Your task to perform on an android device: What's on the menu at Red Lobster? Image 0: 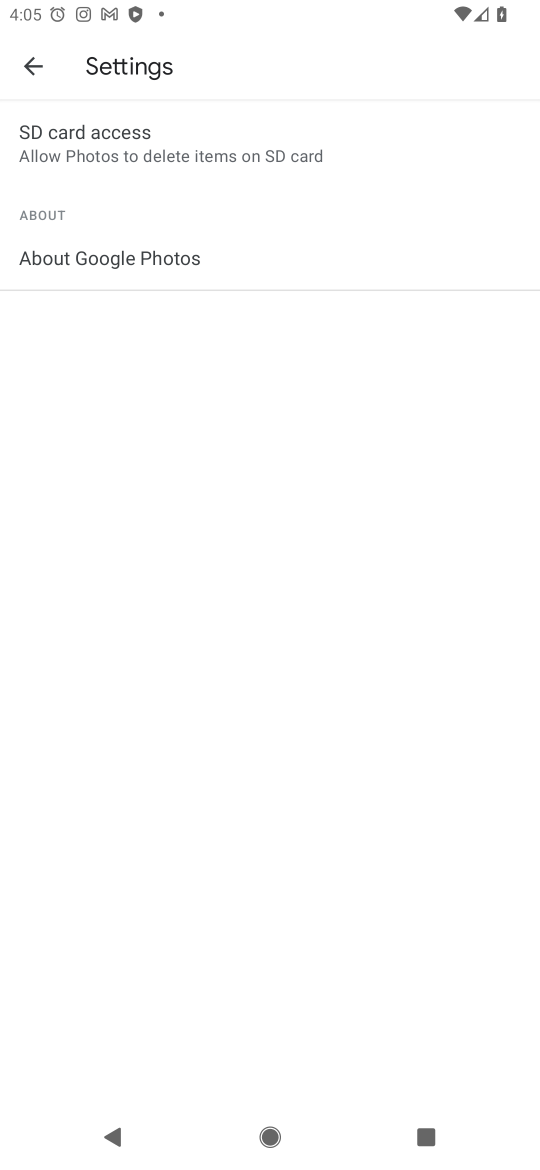
Step 0: press home button
Your task to perform on an android device: What's on the menu at Red Lobster? Image 1: 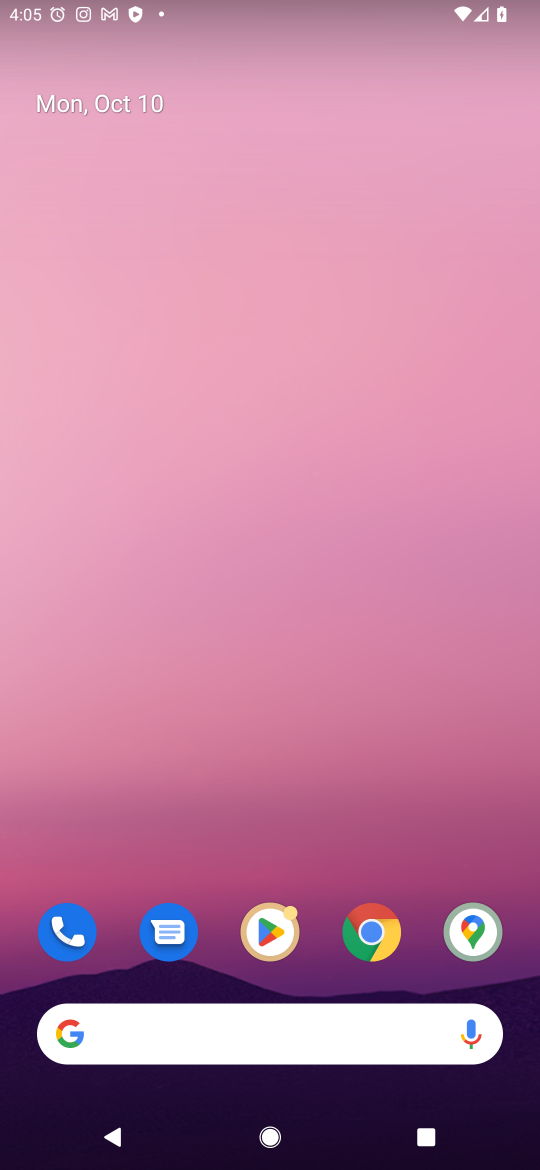
Step 1: click (303, 1040)
Your task to perform on an android device: What's on the menu at Red Lobster? Image 2: 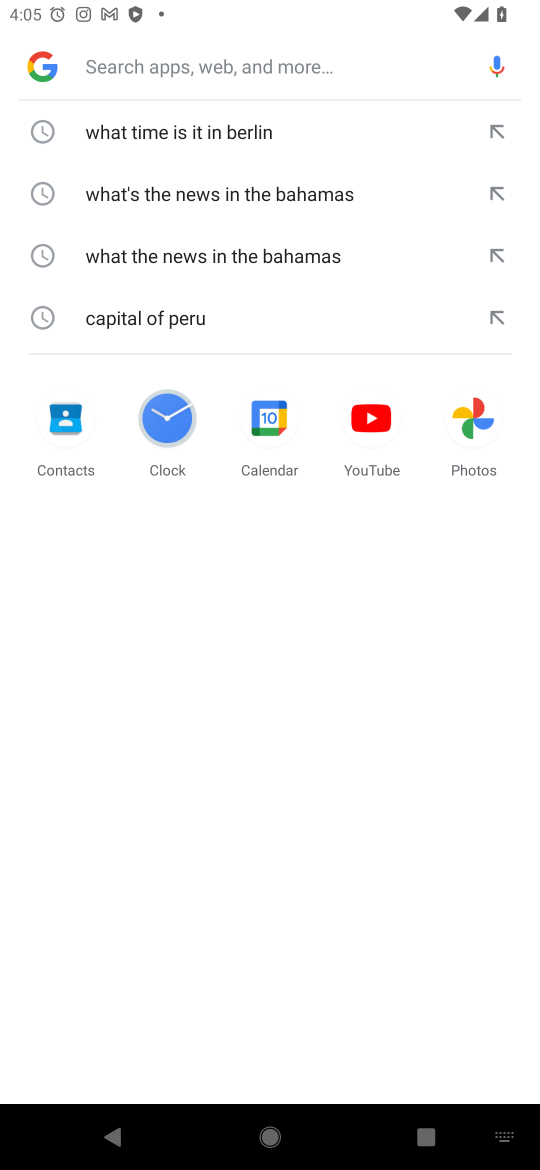
Step 2: type "What's on the menu at Red Lobster"
Your task to perform on an android device: What's on the menu at Red Lobster? Image 3: 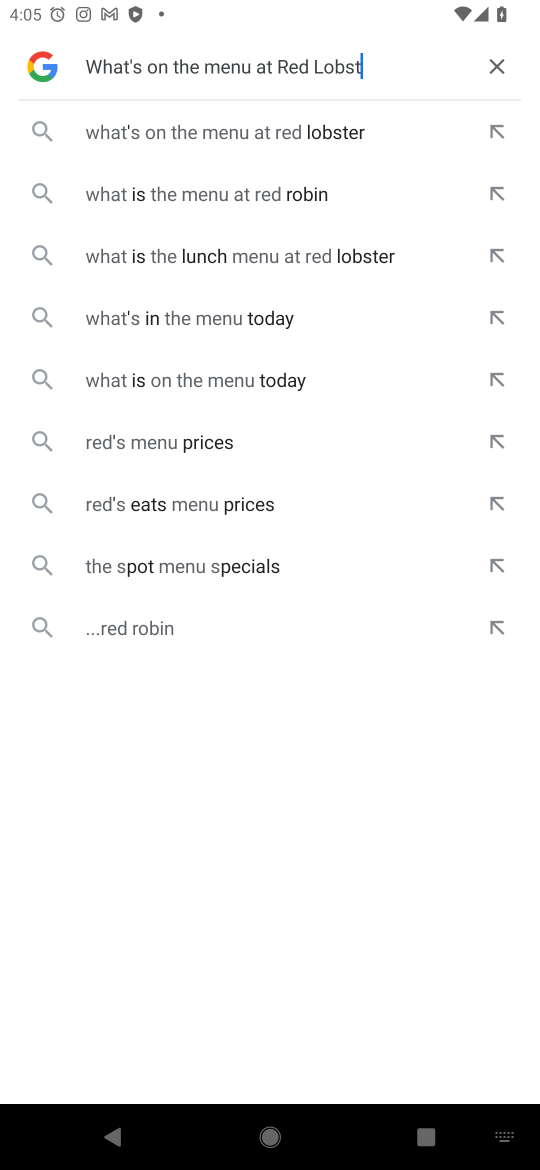
Step 3: press enter
Your task to perform on an android device: What's on the menu at Red Lobster? Image 4: 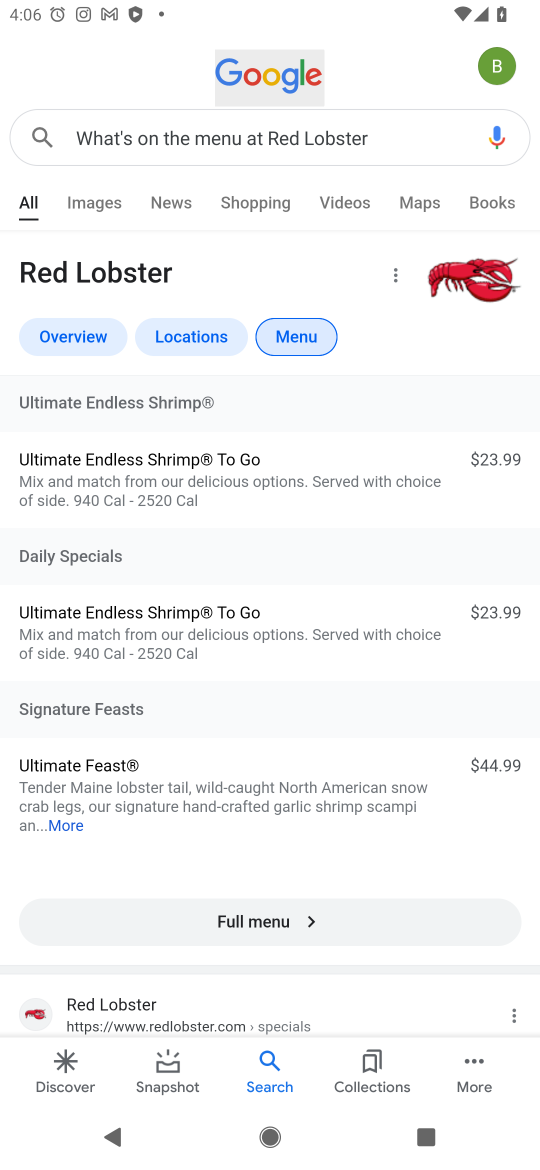
Step 4: click (264, 923)
Your task to perform on an android device: What's on the menu at Red Lobster? Image 5: 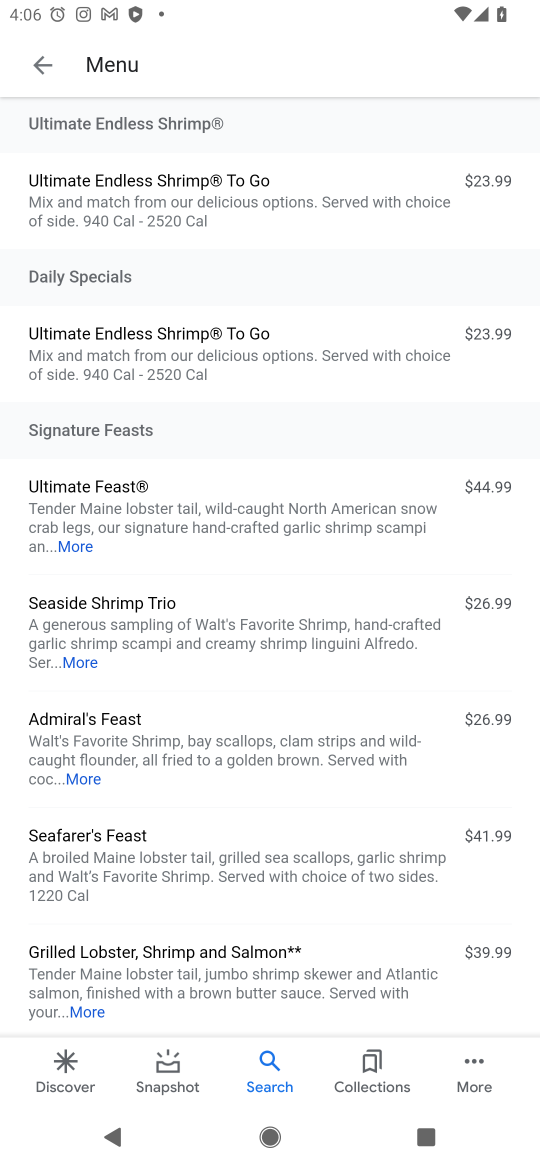
Step 5: task complete